Your task to perform on an android device: Open Chrome and go to the settings page Image 0: 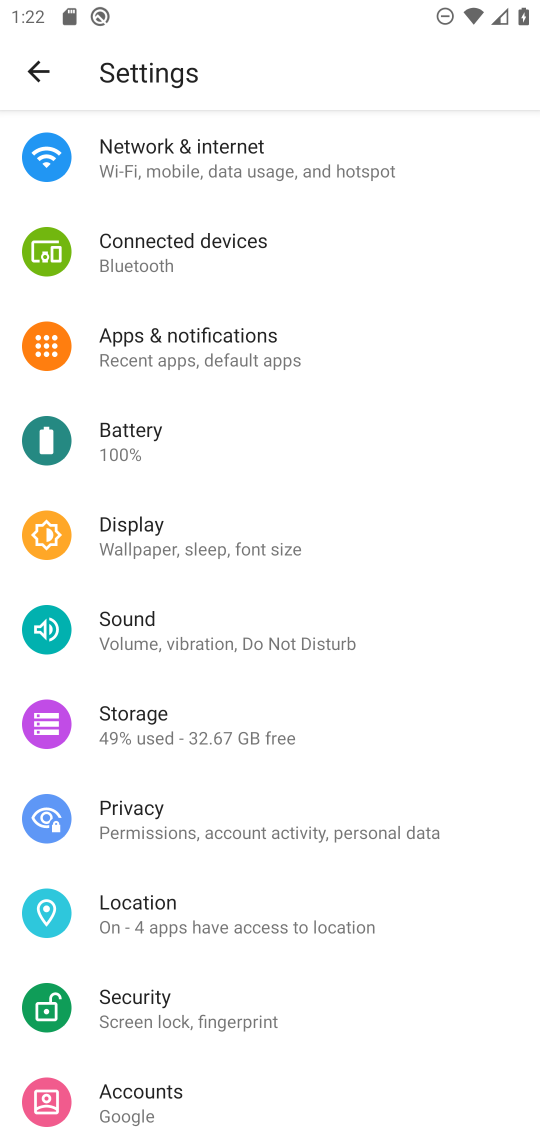
Step 0: press home button
Your task to perform on an android device: Open Chrome and go to the settings page Image 1: 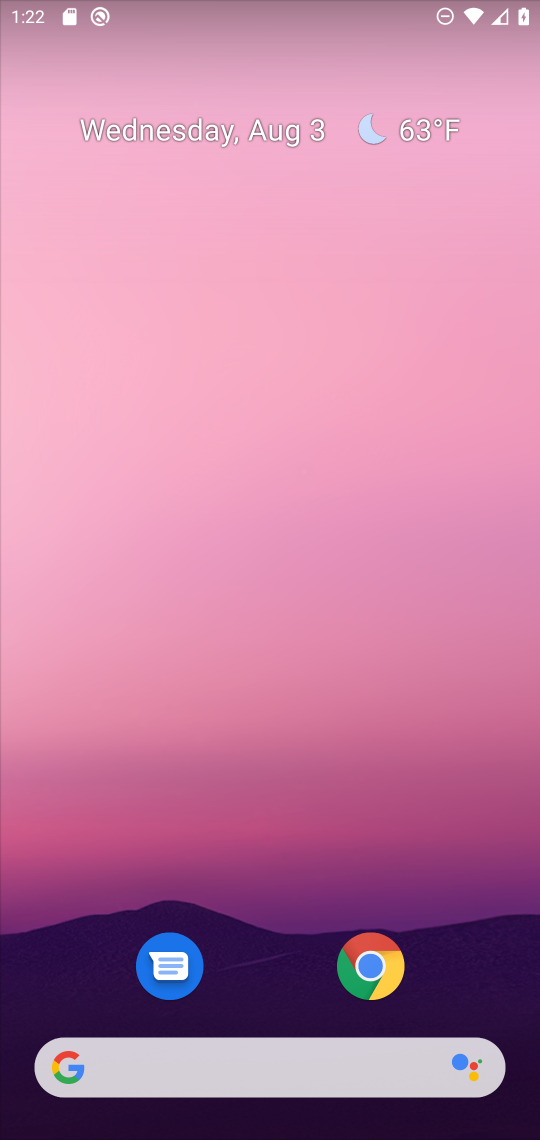
Step 1: click (400, 978)
Your task to perform on an android device: Open Chrome and go to the settings page Image 2: 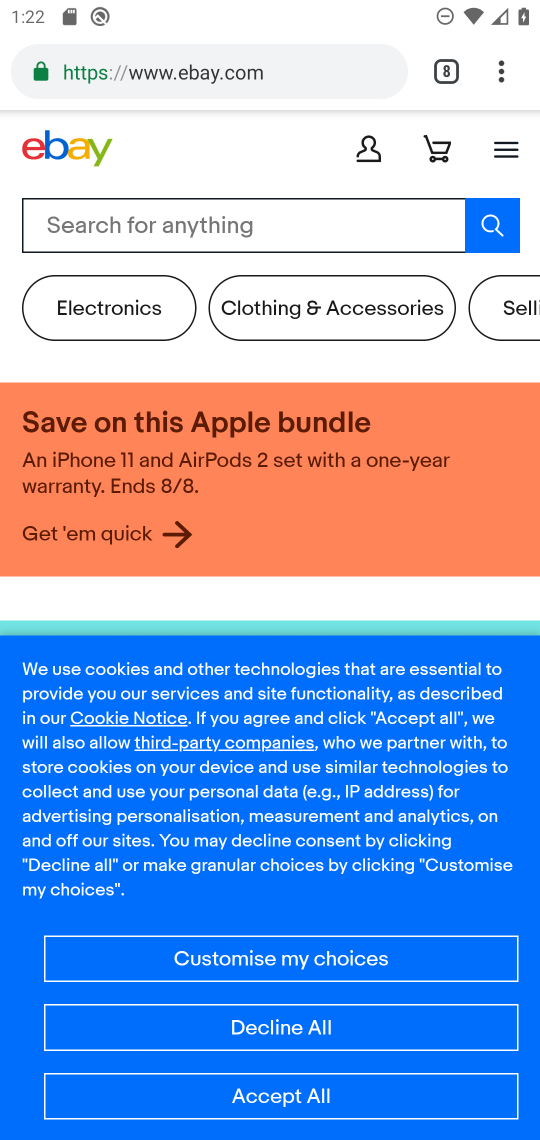
Step 2: click (493, 60)
Your task to perform on an android device: Open Chrome and go to the settings page Image 3: 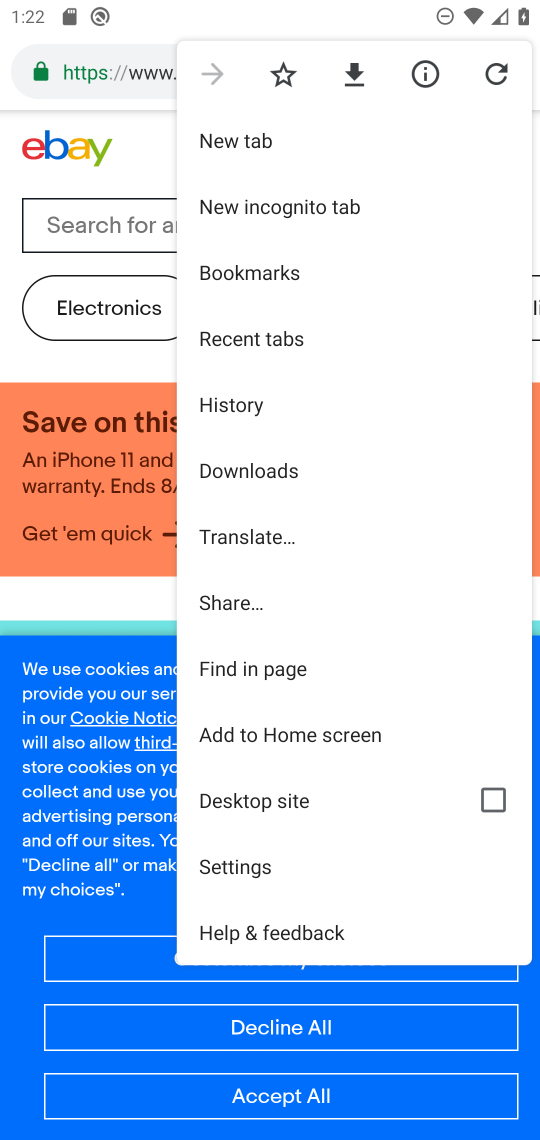
Step 3: click (253, 860)
Your task to perform on an android device: Open Chrome and go to the settings page Image 4: 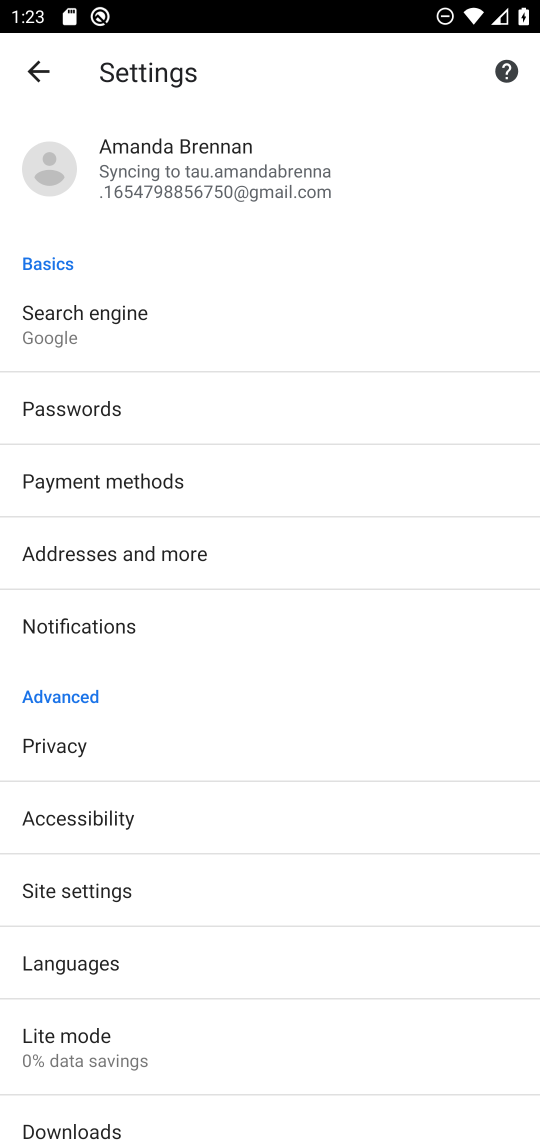
Step 4: task complete